Your task to perform on an android device: Go to Reddit.com Image 0: 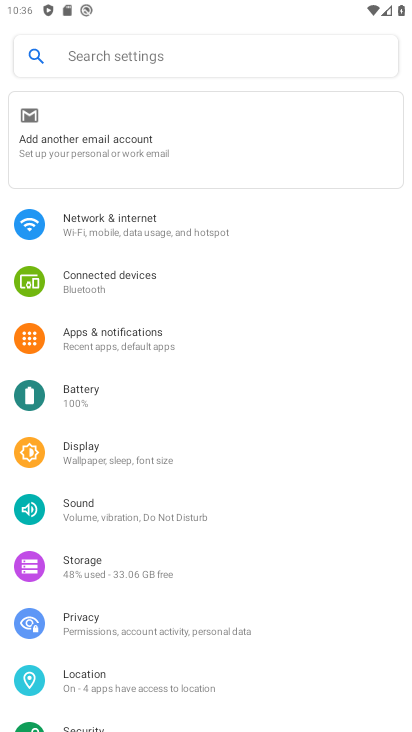
Step 0: press home button
Your task to perform on an android device: Go to Reddit.com Image 1: 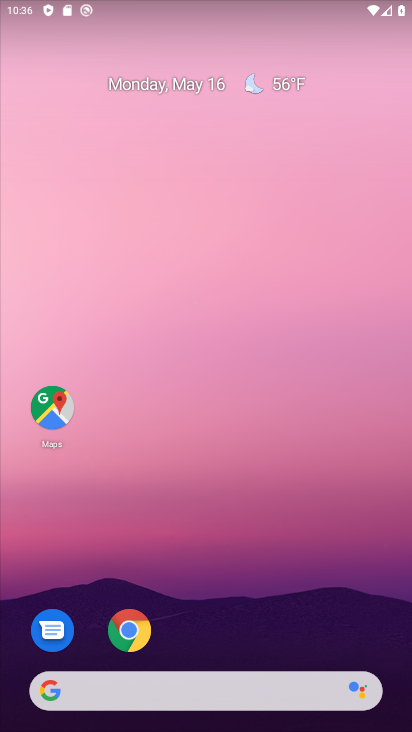
Step 1: click (201, 685)
Your task to perform on an android device: Go to Reddit.com Image 2: 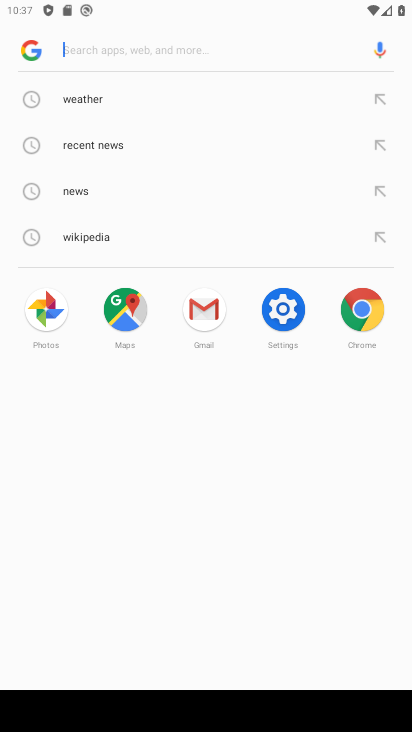
Step 2: type "Reddit.com"
Your task to perform on an android device: Go to Reddit.com Image 3: 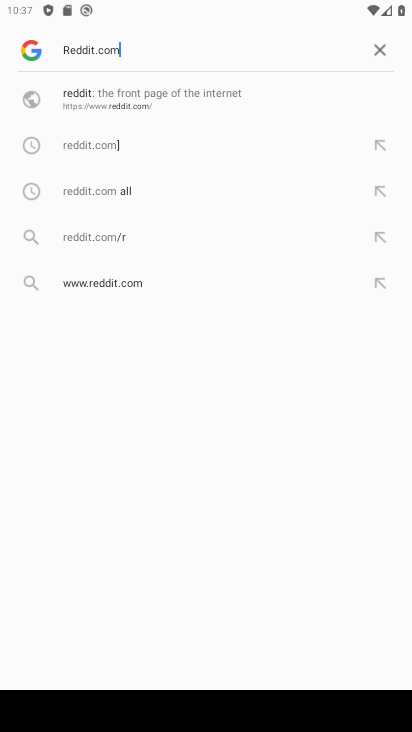
Step 3: click (218, 109)
Your task to perform on an android device: Go to Reddit.com Image 4: 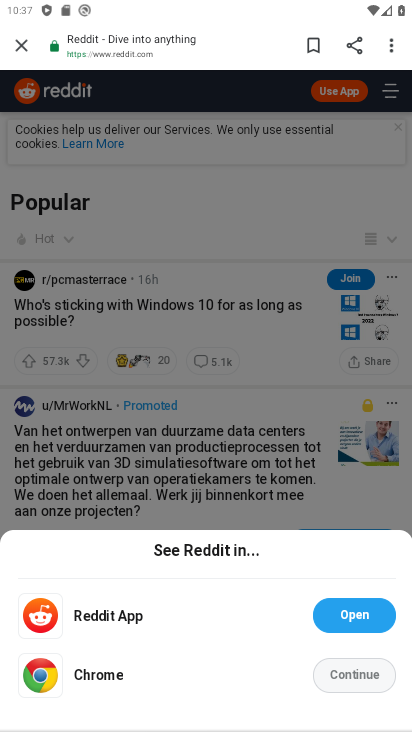
Step 4: click (372, 682)
Your task to perform on an android device: Go to Reddit.com Image 5: 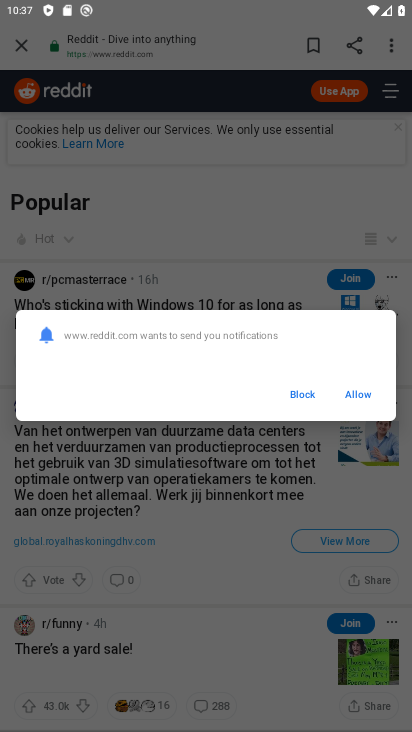
Step 5: click (366, 394)
Your task to perform on an android device: Go to Reddit.com Image 6: 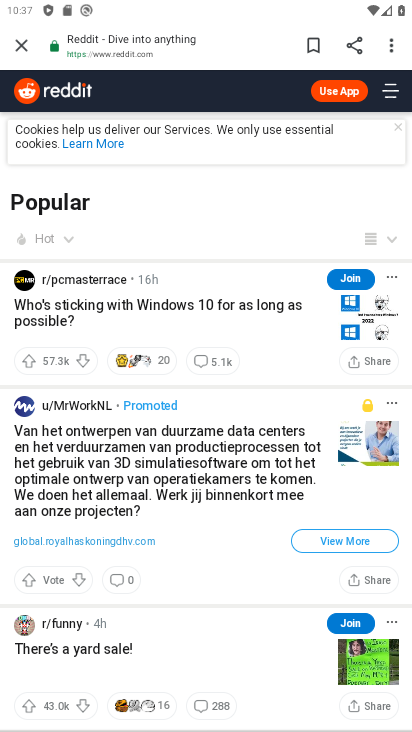
Step 6: task complete